Your task to perform on an android device: When is my next appointment? Image 0: 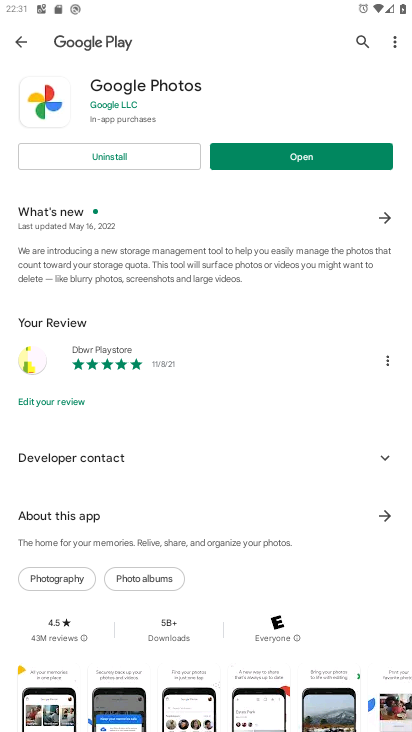
Step 0: press home button
Your task to perform on an android device: When is my next appointment? Image 1: 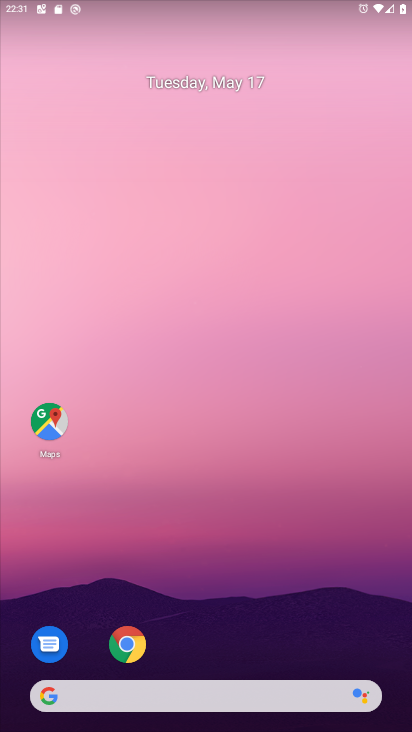
Step 1: drag from (200, 647) to (184, 169)
Your task to perform on an android device: When is my next appointment? Image 2: 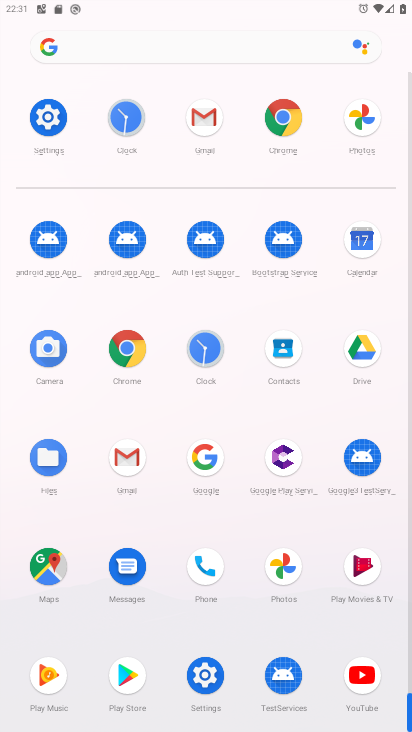
Step 2: click (358, 241)
Your task to perform on an android device: When is my next appointment? Image 3: 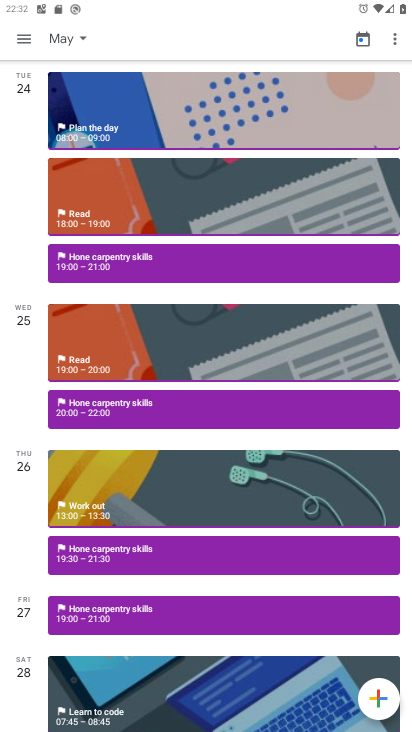
Step 3: drag from (30, 238) to (34, 701)
Your task to perform on an android device: When is my next appointment? Image 4: 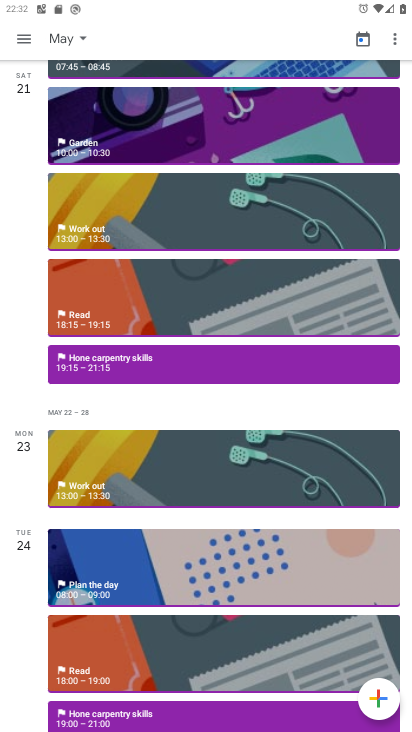
Step 4: drag from (20, 100) to (7, 502)
Your task to perform on an android device: When is my next appointment? Image 5: 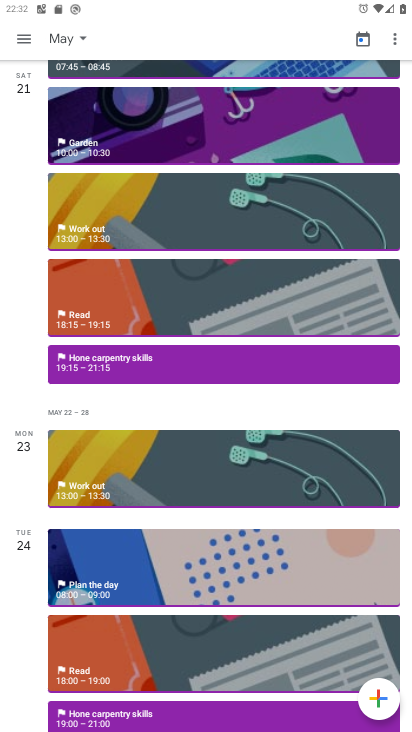
Step 5: drag from (32, 83) to (23, 711)
Your task to perform on an android device: When is my next appointment? Image 6: 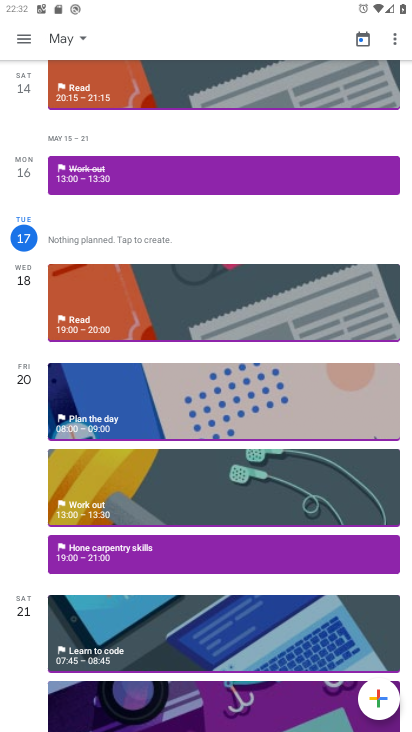
Step 6: drag from (24, 546) to (92, 278)
Your task to perform on an android device: When is my next appointment? Image 7: 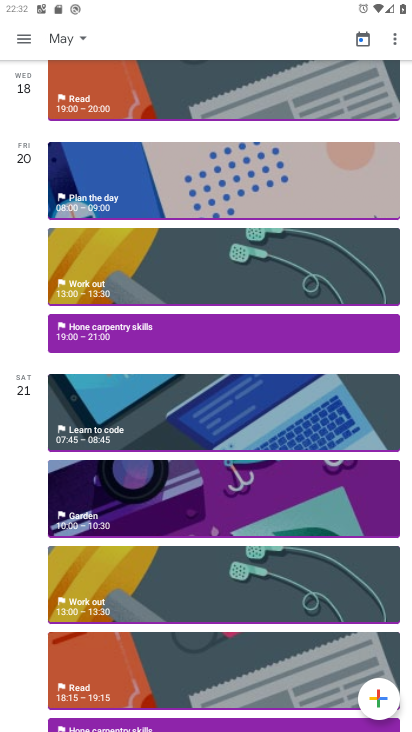
Step 7: click (100, 213)
Your task to perform on an android device: When is my next appointment? Image 8: 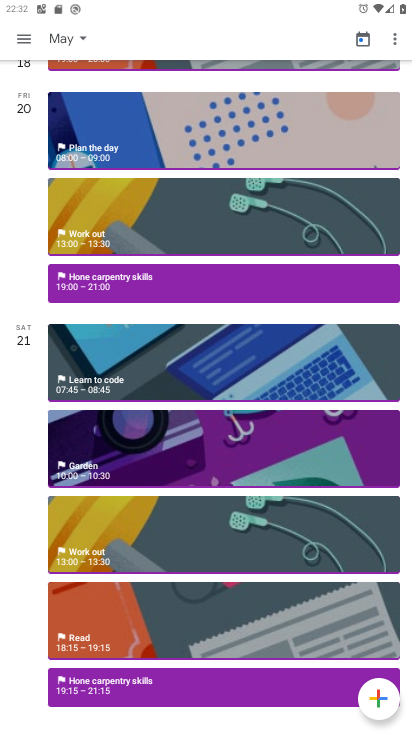
Step 8: task complete